Your task to perform on an android device: Open Google Chrome and click the shortcut for Amazon.com Image 0: 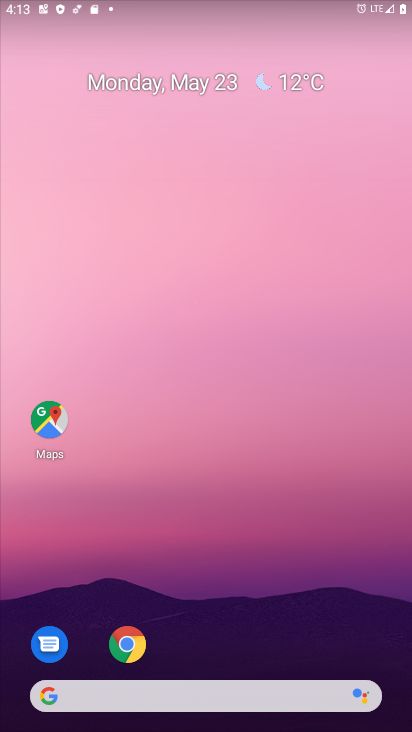
Step 0: click (145, 646)
Your task to perform on an android device: Open Google Chrome and click the shortcut for Amazon.com Image 1: 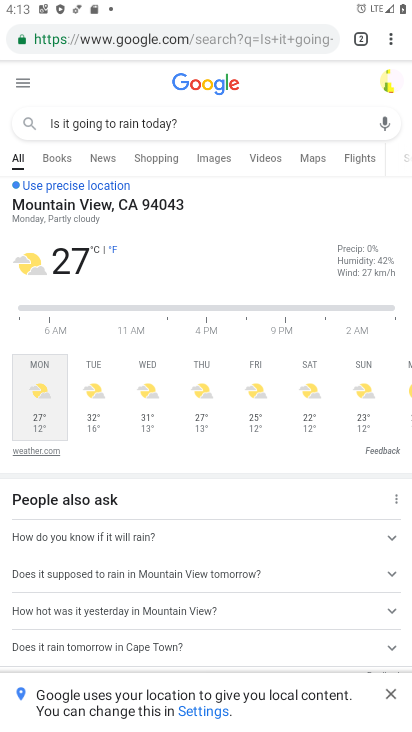
Step 1: click (362, 43)
Your task to perform on an android device: Open Google Chrome and click the shortcut for Amazon.com Image 2: 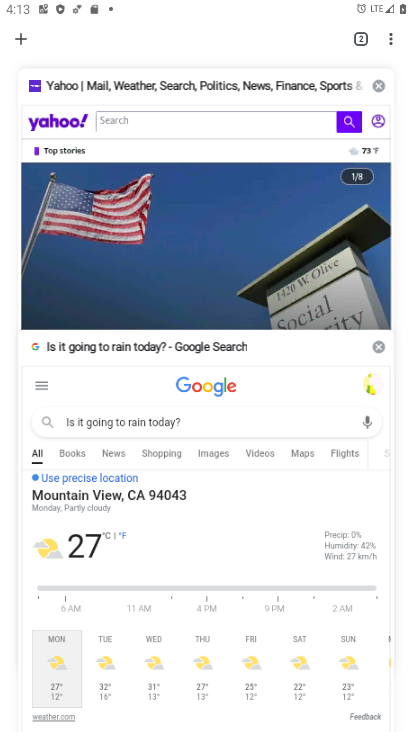
Step 2: click (23, 35)
Your task to perform on an android device: Open Google Chrome and click the shortcut for Amazon.com Image 3: 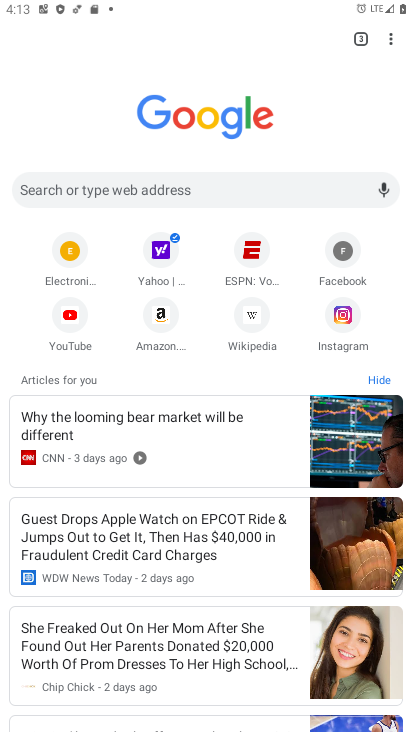
Step 3: click (168, 323)
Your task to perform on an android device: Open Google Chrome and click the shortcut for Amazon.com Image 4: 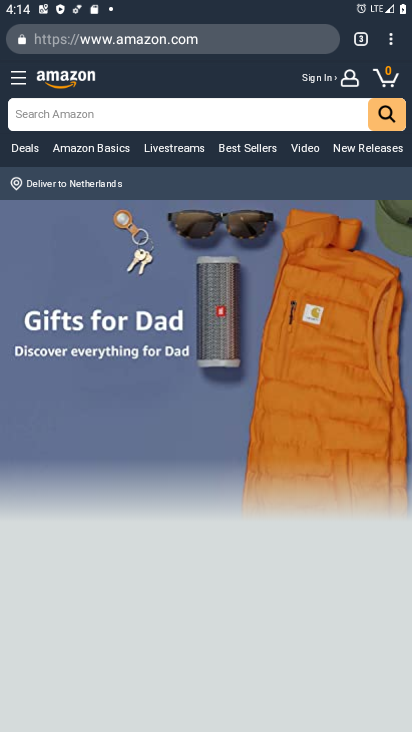
Step 4: task complete